Your task to perform on an android device: Search for "sony triple a" on amazon, select the first entry, and add it to the cart. Image 0: 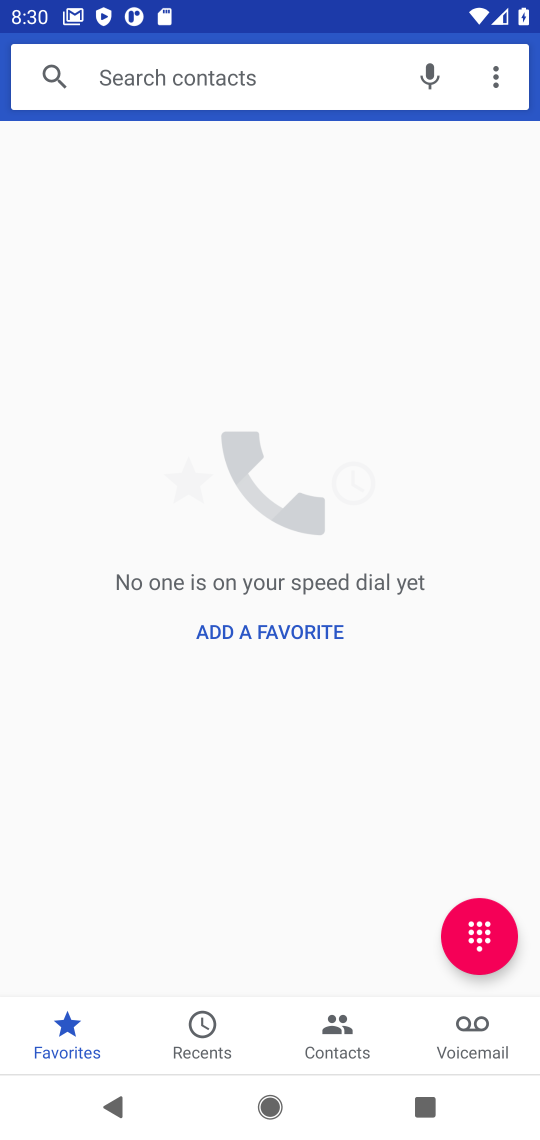
Step 0: press home button
Your task to perform on an android device: Search for "sony triple a" on amazon, select the first entry, and add it to the cart. Image 1: 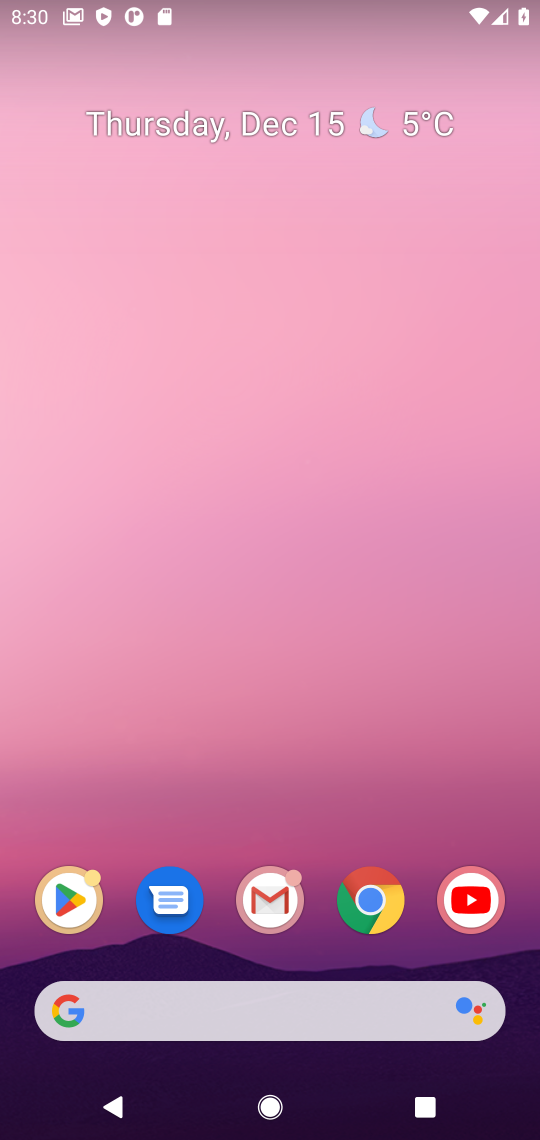
Step 1: click (362, 898)
Your task to perform on an android device: Search for "sony triple a" on amazon, select the first entry, and add it to the cart. Image 2: 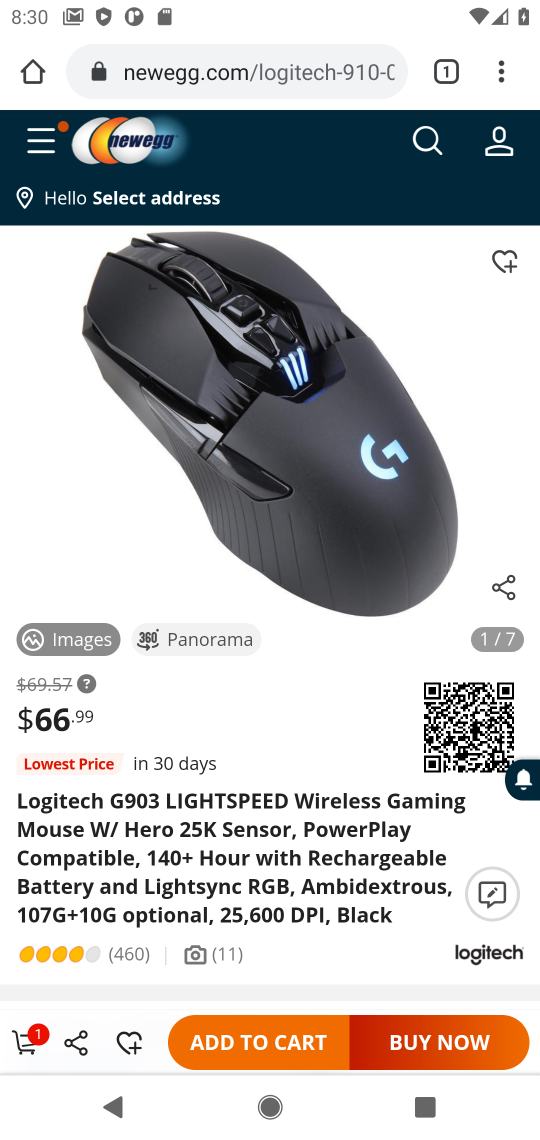
Step 2: click (220, 88)
Your task to perform on an android device: Search for "sony triple a" on amazon, select the first entry, and add it to the cart. Image 3: 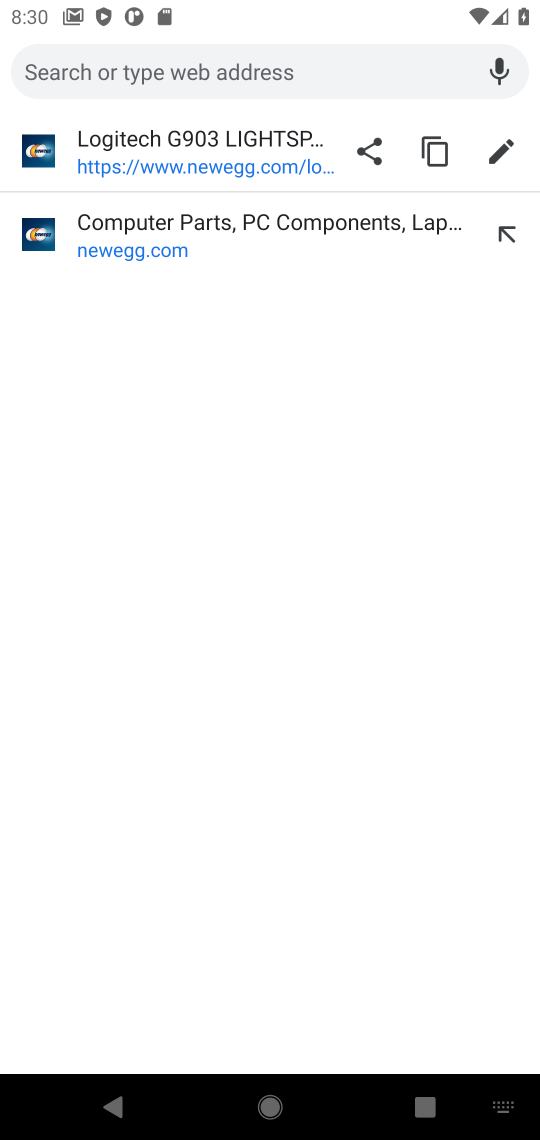
Step 3: type "amazon"
Your task to perform on an android device: Search for "sony triple a" on amazon, select the first entry, and add it to the cart. Image 4: 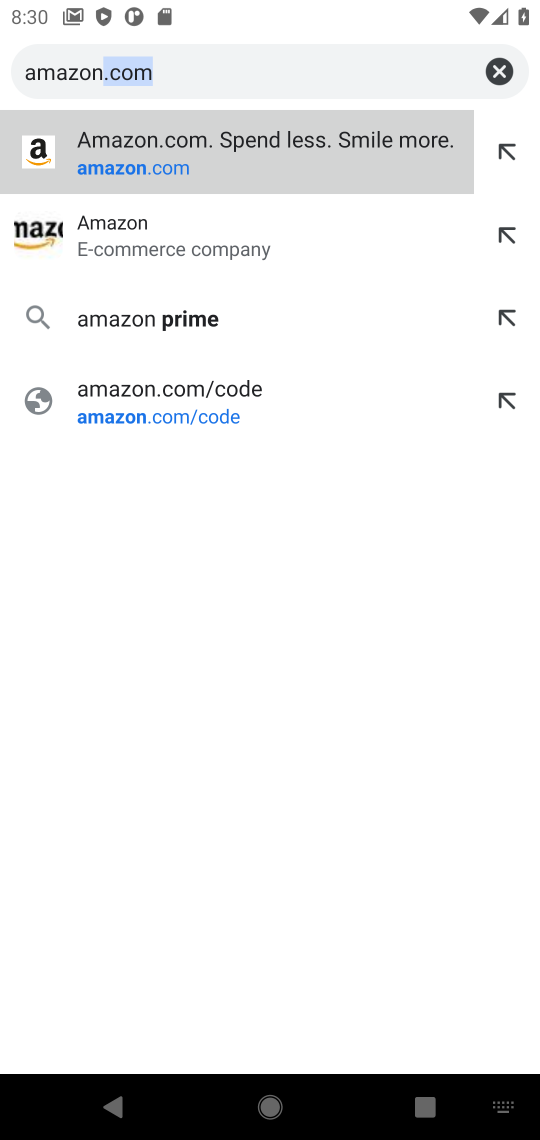
Step 4: click (166, 174)
Your task to perform on an android device: Search for "sony triple a" on amazon, select the first entry, and add it to the cart. Image 5: 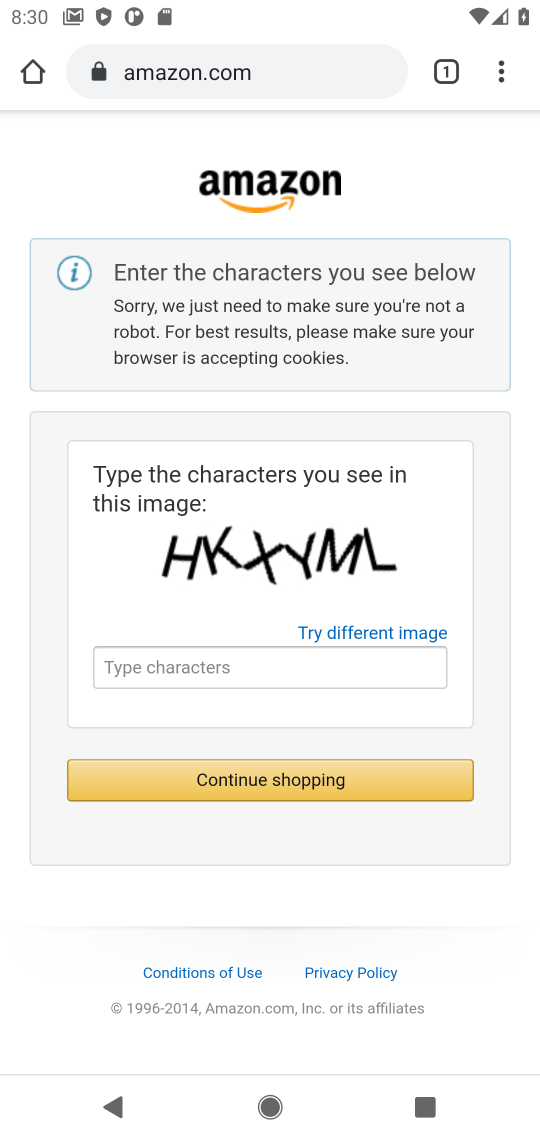
Step 5: click (209, 667)
Your task to perform on an android device: Search for "sony triple a" on amazon, select the first entry, and add it to the cart. Image 6: 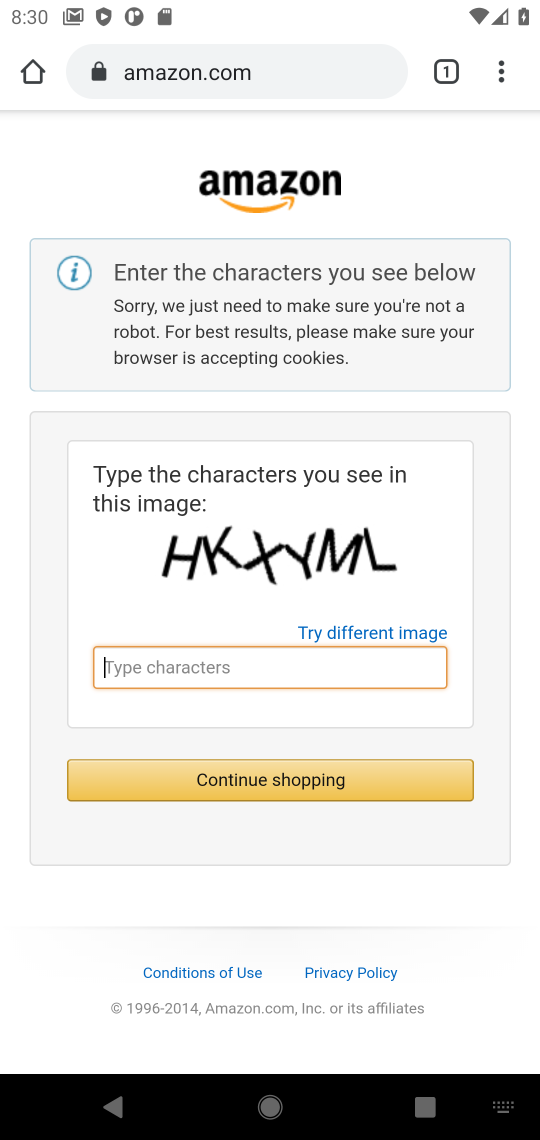
Step 6: type "HKXYML"
Your task to perform on an android device: Search for "sony triple a" on amazon, select the first entry, and add it to the cart. Image 7: 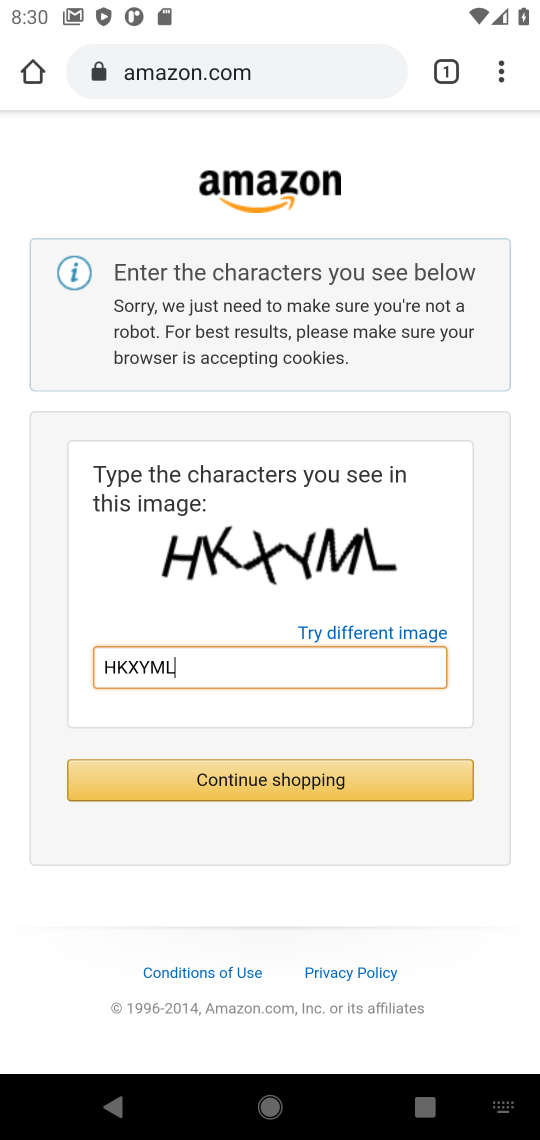
Step 7: click (282, 787)
Your task to perform on an android device: Search for "sony triple a" on amazon, select the first entry, and add it to the cart. Image 8: 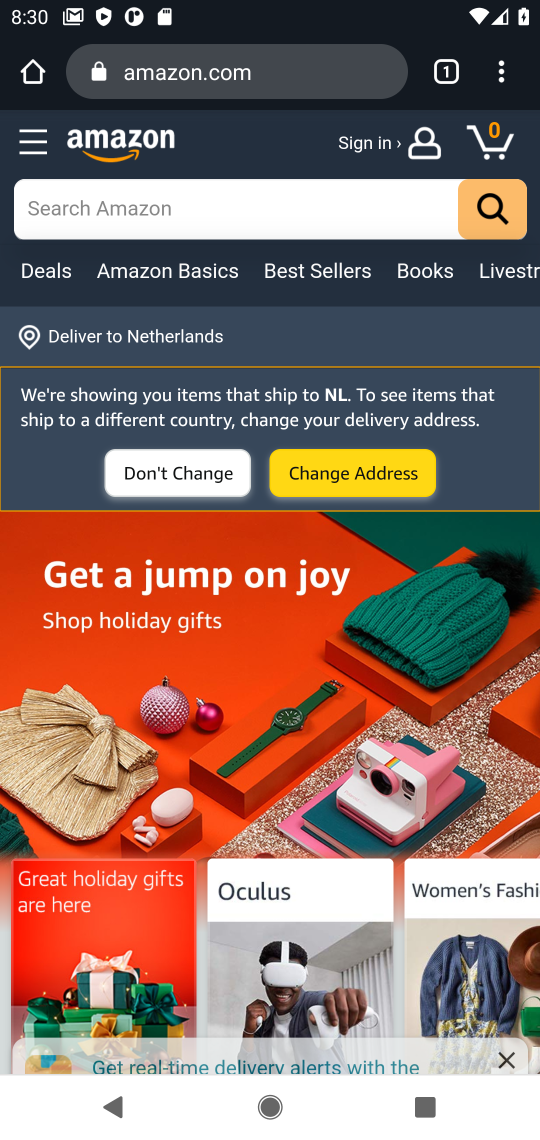
Step 8: click (175, 207)
Your task to perform on an android device: Search for "sony triple a" on amazon, select the first entry, and add it to the cart. Image 9: 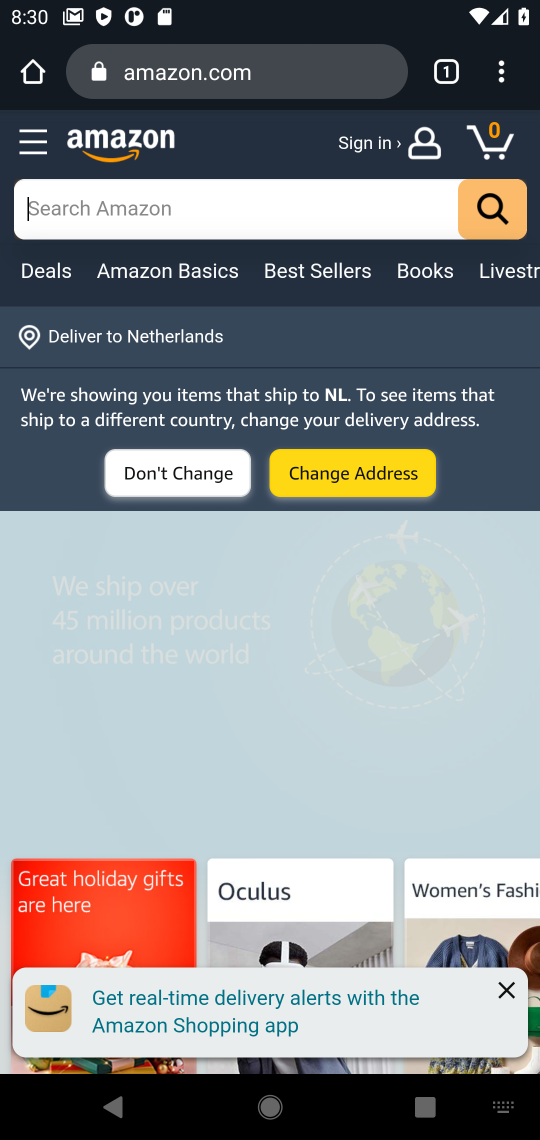
Step 9: type "sony triple a"
Your task to perform on an android device: Search for "sony triple a" on amazon, select the first entry, and add it to the cart. Image 10: 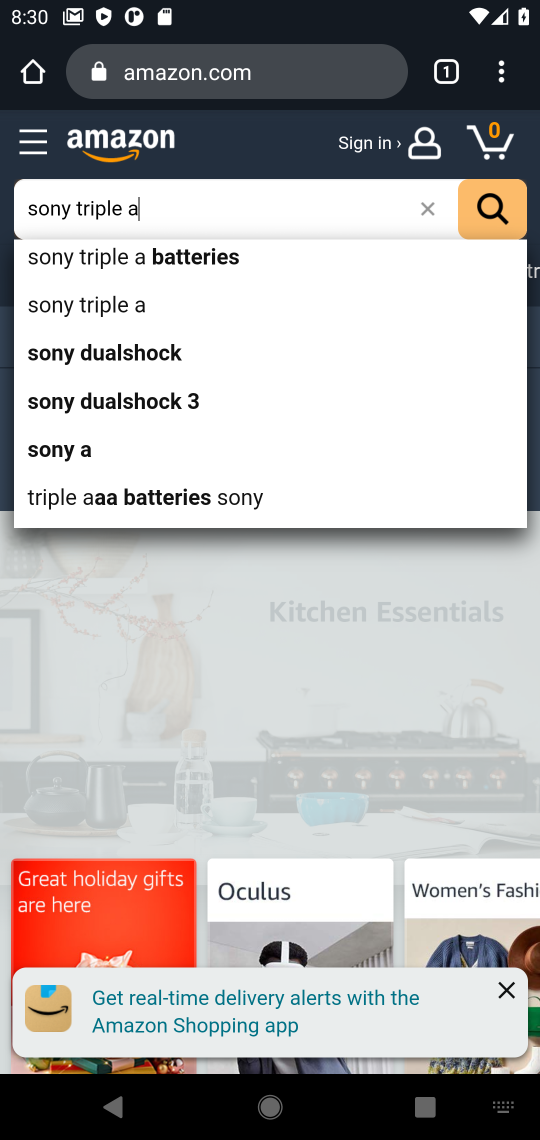
Step 10: click (502, 215)
Your task to perform on an android device: Search for "sony triple a" on amazon, select the first entry, and add it to the cart. Image 11: 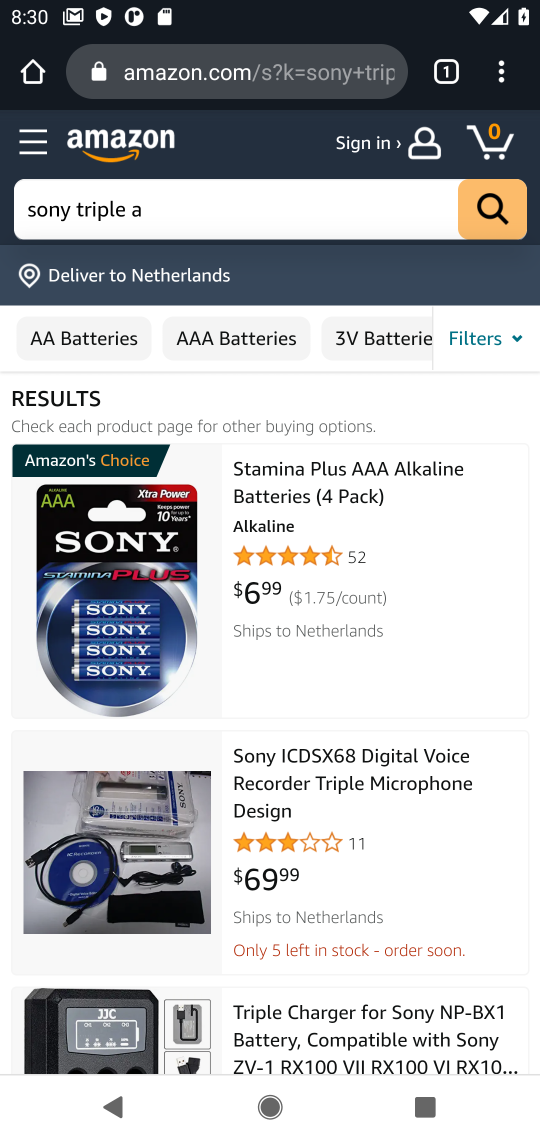
Step 11: click (290, 539)
Your task to perform on an android device: Search for "sony triple a" on amazon, select the first entry, and add it to the cart. Image 12: 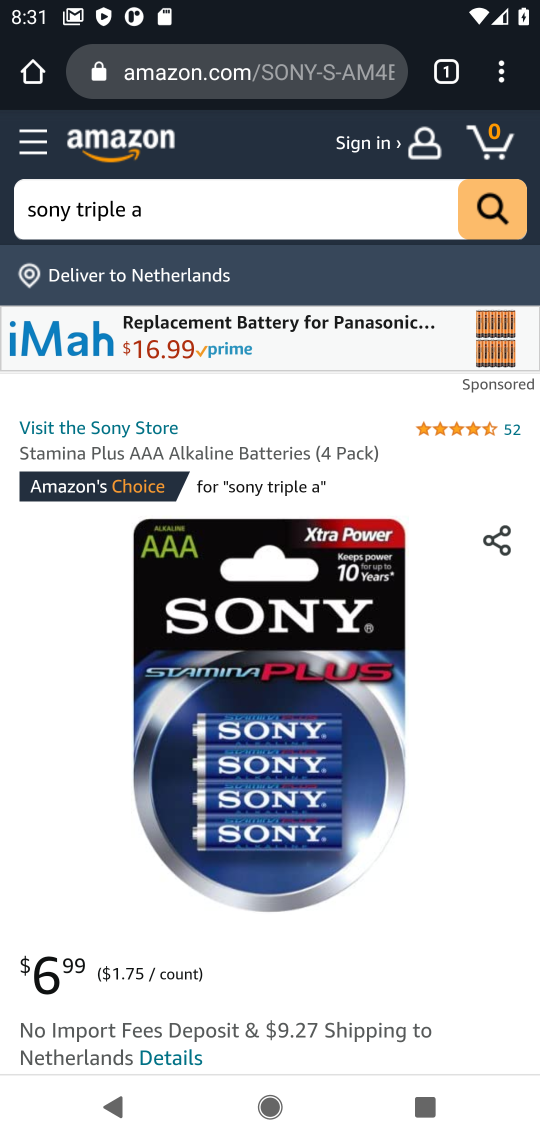
Step 12: drag from (463, 914) to (456, 489)
Your task to perform on an android device: Search for "sony triple a" on amazon, select the first entry, and add it to the cart. Image 13: 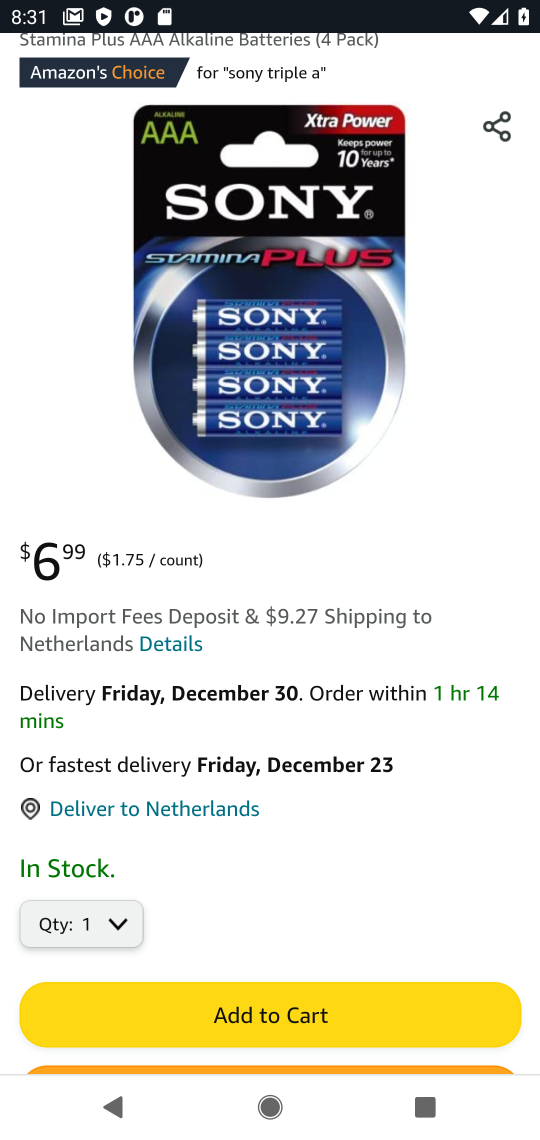
Step 13: click (313, 1010)
Your task to perform on an android device: Search for "sony triple a" on amazon, select the first entry, and add it to the cart. Image 14: 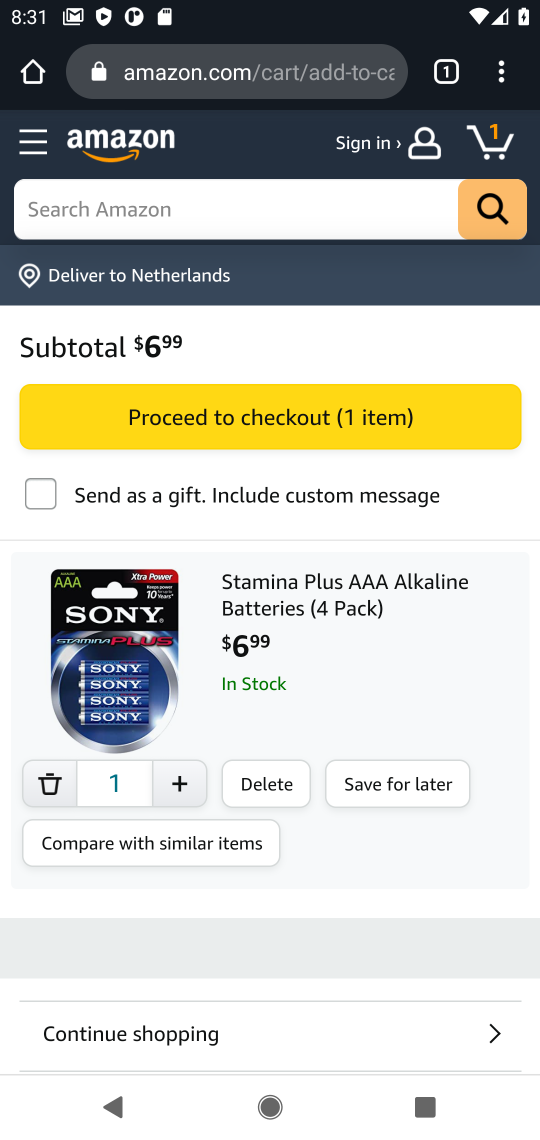
Step 14: task complete